Your task to perform on an android device: check android version Image 0: 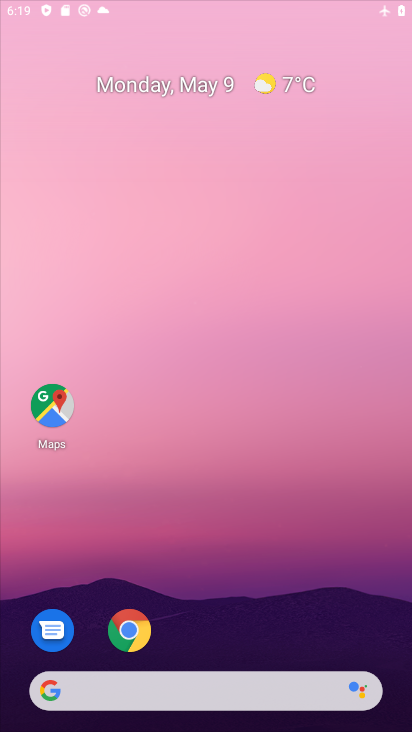
Step 0: drag from (281, 617) to (165, 139)
Your task to perform on an android device: check android version Image 1: 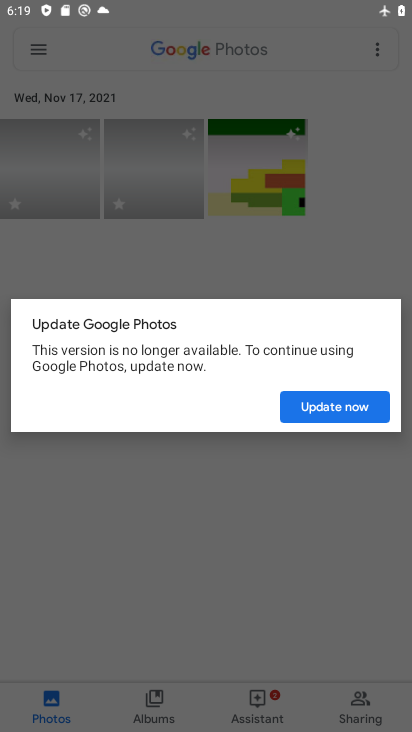
Step 1: press home button
Your task to perform on an android device: check android version Image 2: 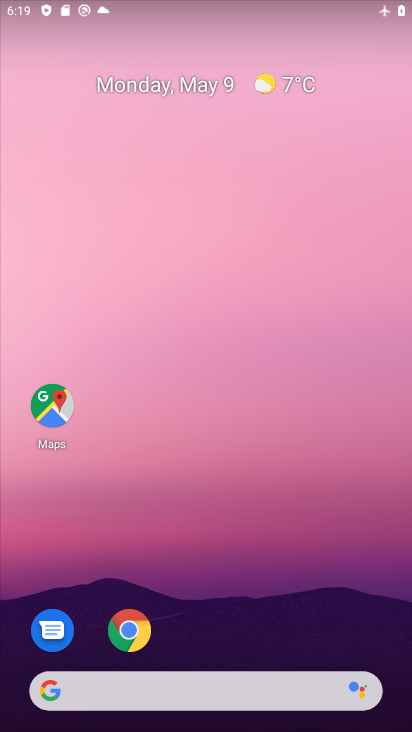
Step 2: drag from (303, 579) to (269, 178)
Your task to perform on an android device: check android version Image 3: 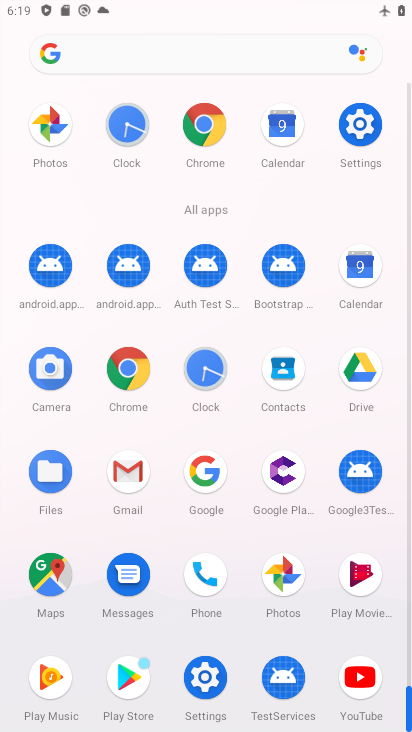
Step 3: click (361, 160)
Your task to perform on an android device: check android version Image 4: 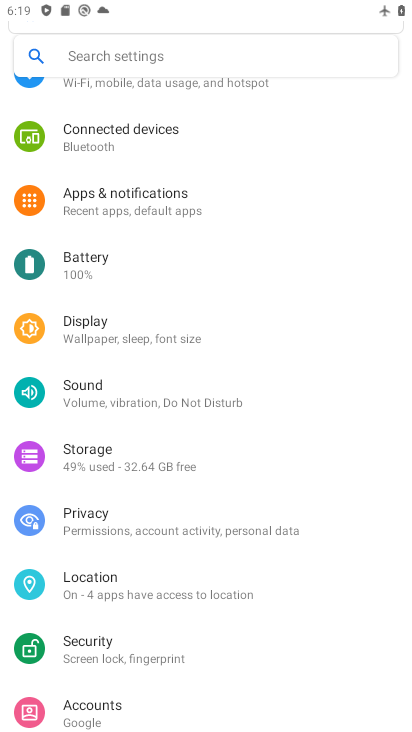
Step 4: drag from (191, 259) to (184, 722)
Your task to perform on an android device: check android version Image 5: 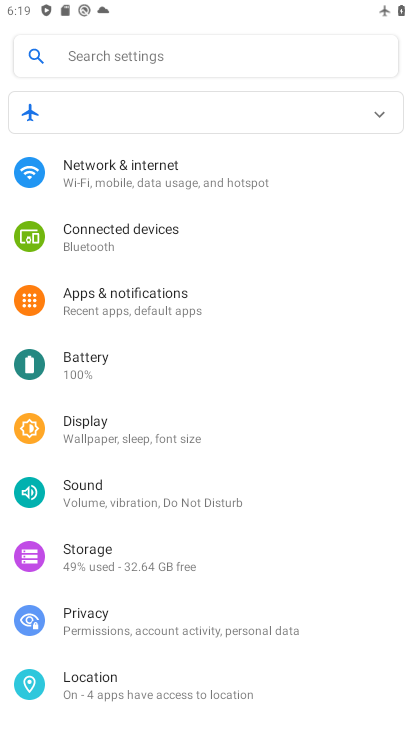
Step 5: press home button
Your task to perform on an android device: check android version Image 6: 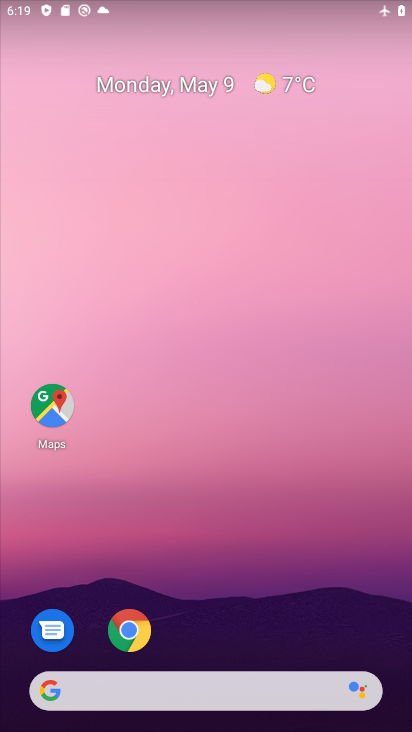
Step 6: drag from (239, 445) to (239, 179)
Your task to perform on an android device: check android version Image 7: 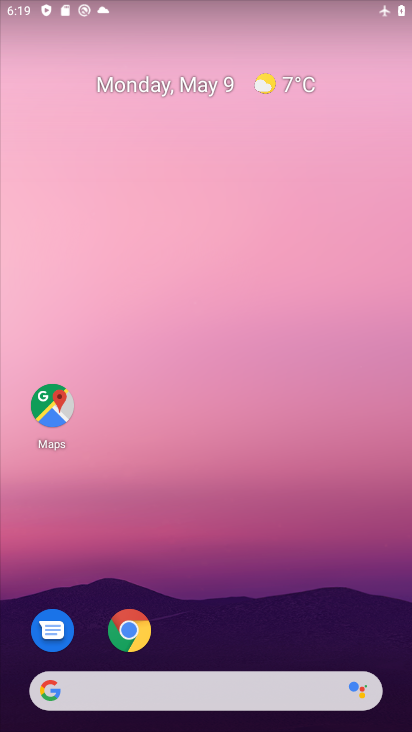
Step 7: drag from (258, 621) to (158, 100)
Your task to perform on an android device: check android version Image 8: 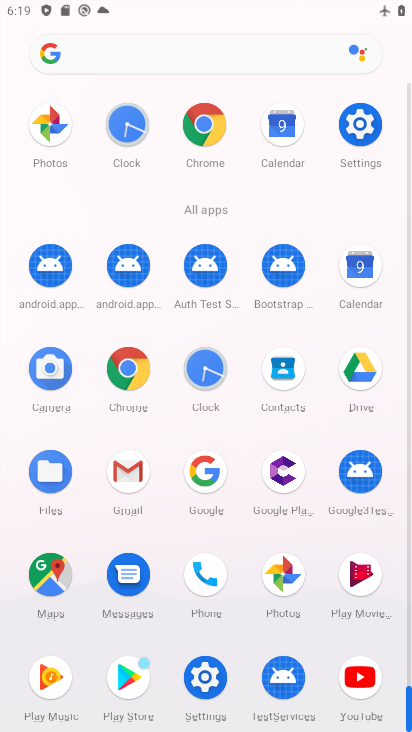
Step 8: click (200, 684)
Your task to perform on an android device: check android version Image 9: 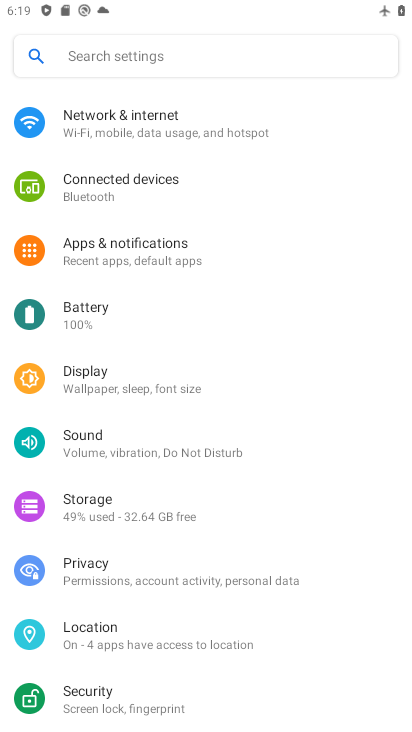
Step 9: drag from (162, 633) to (151, 266)
Your task to perform on an android device: check android version Image 10: 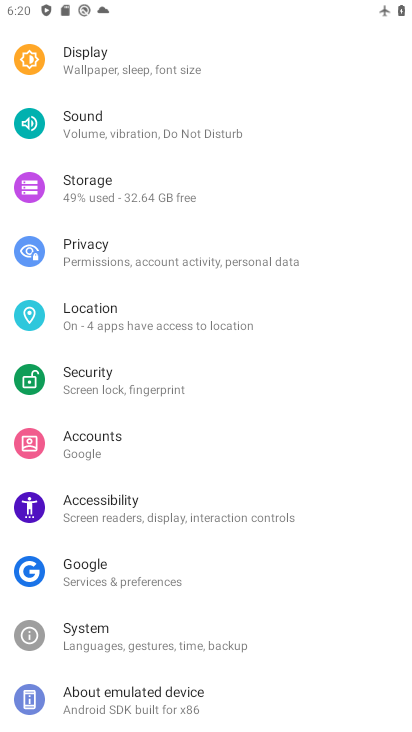
Step 10: click (126, 697)
Your task to perform on an android device: check android version Image 11: 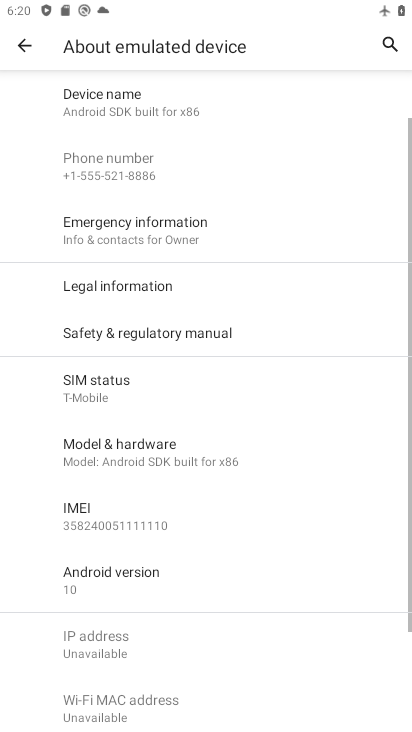
Step 11: drag from (177, 638) to (194, 419)
Your task to perform on an android device: check android version Image 12: 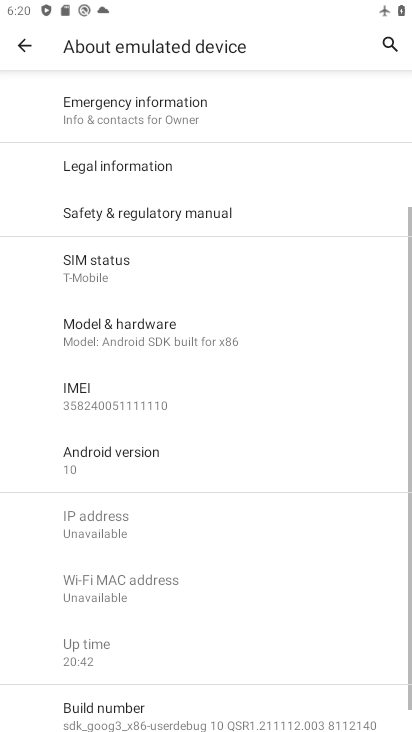
Step 12: click (110, 471)
Your task to perform on an android device: check android version Image 13: 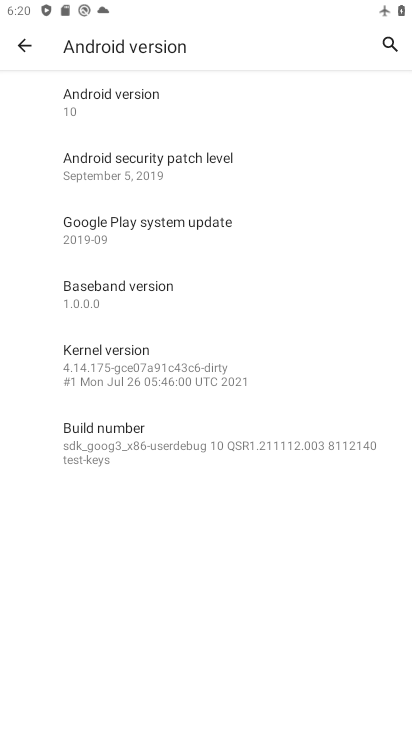
Step 13: task complete